Your task to perform on an android device: see sites visited before in the chrome app Image 0: 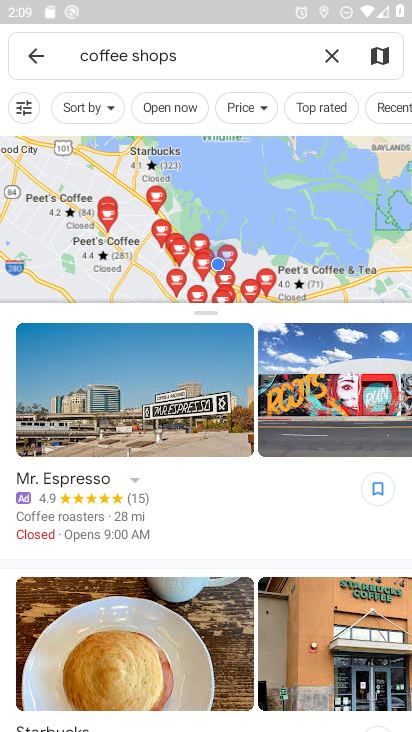
Step 0: press home button
Your task to perform on an android device: see sites visited before in the chrome app Image 1: 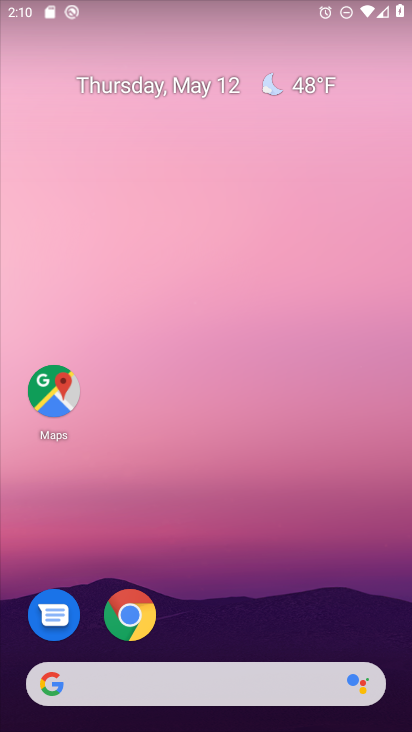
Step 1: drag from (173, 705) to (245, 104)
Your task to perform on an android device: see sites visited before in the chrome app Image 2: 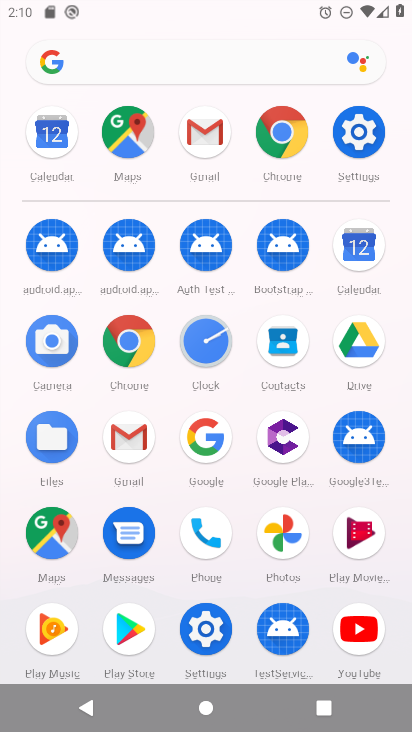
Step 2: click (123, 345)
Your task to perform on an android device: see sites visited before in the chrome app Image 3: 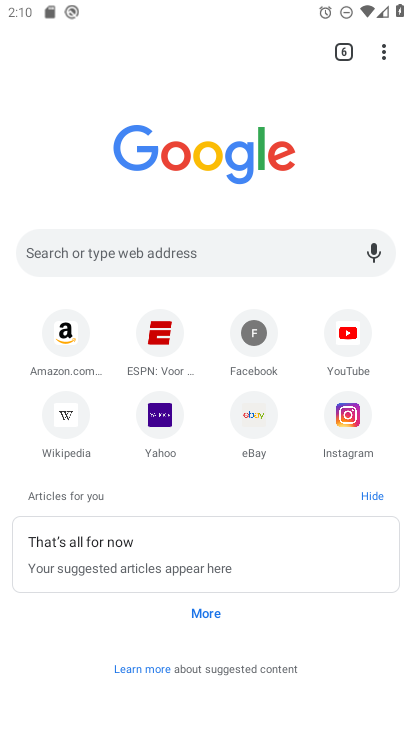
Step 3: task complete